Your task to perform on an android device: turn off javascript in the chrome app Image 0: 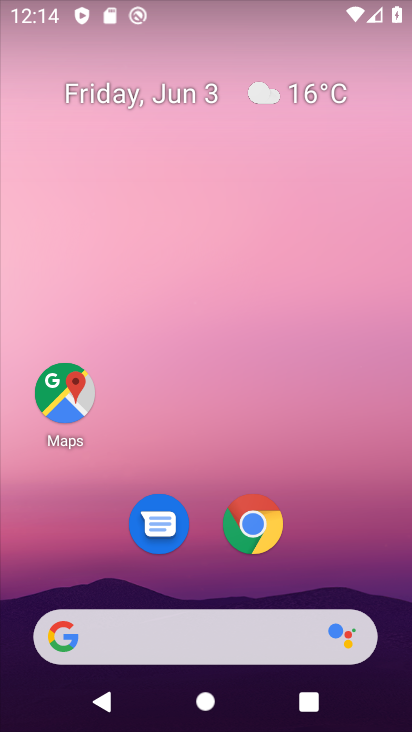
Step 0: click (265, 515)
Your task to perform on an android device: turn off javascript in the chrome app Image 1: 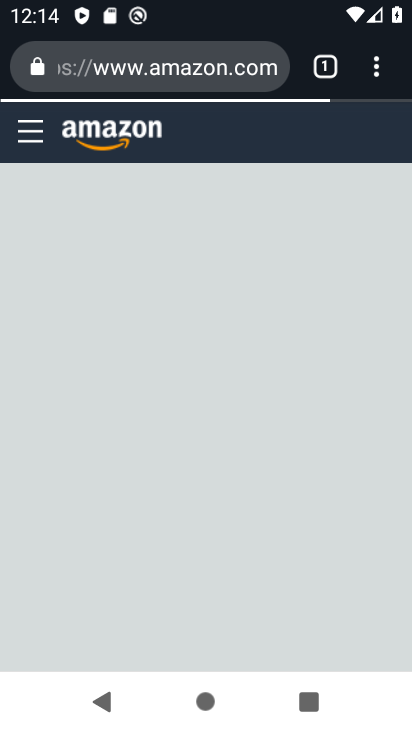
Step 1: click (380, 71)
Your task to perform on an android device: turn off javascript in the chrome app Image 2: 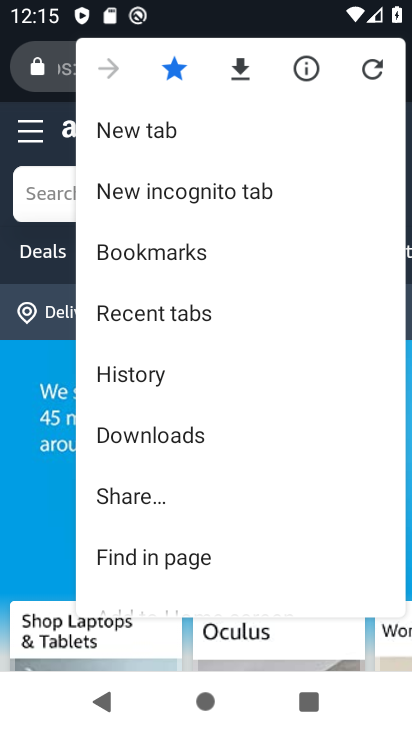
Step 2: drag from (215, 481) to (197, 191)
Your task to perform on an android device: turn off javascript in the chrome app Image 3: 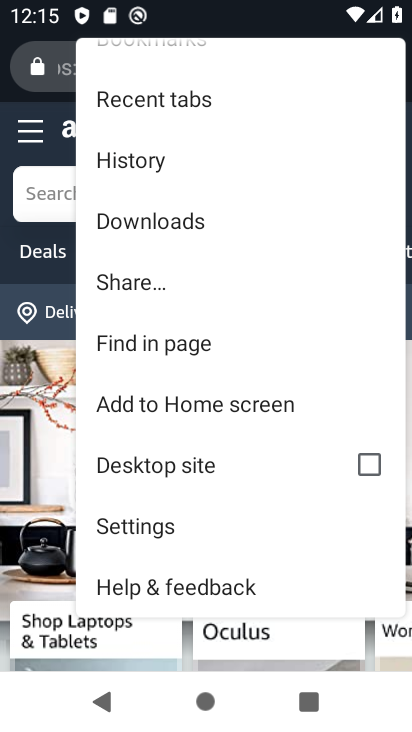
Step 3: click (172, 520)
Your task to perform on an android device: turn off javascript in the chrome app Image 4: 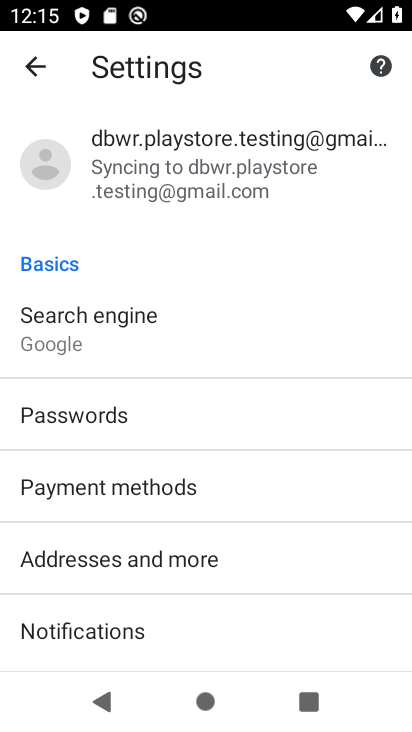
Step 4: drag from (287, 607) to (247, 191)
Your task to perform on an android device: turn off javascript in the chrome app Image 5: 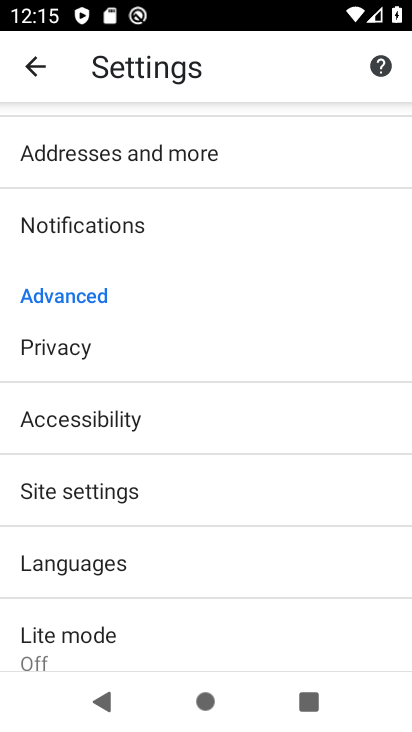
Step 5: click (176, 479)
Your task to perform on an android device: turn off javascript in the chrome app Image 6: 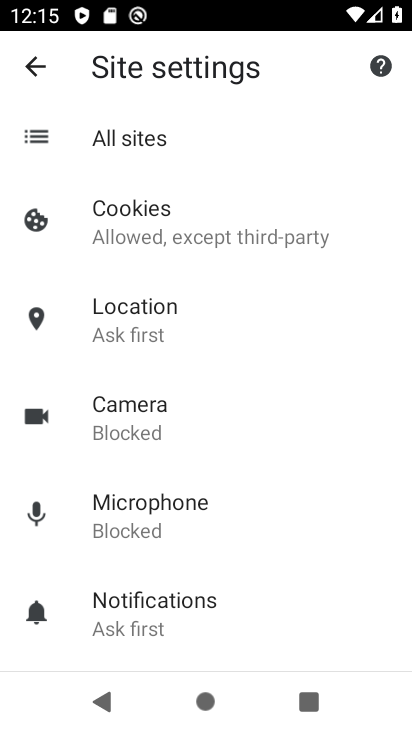
Step 6: drag from (211, 570) to (234, 255)
Your task to perform on an android device: turn off javascript in the chrome app Image 7: 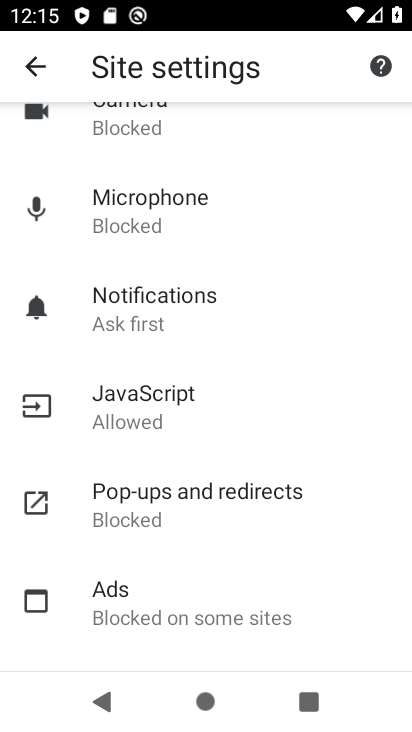
Step 7: click (208, 404)
Your task to perform on an android device: turn off javascript in the chrome app Image 8: 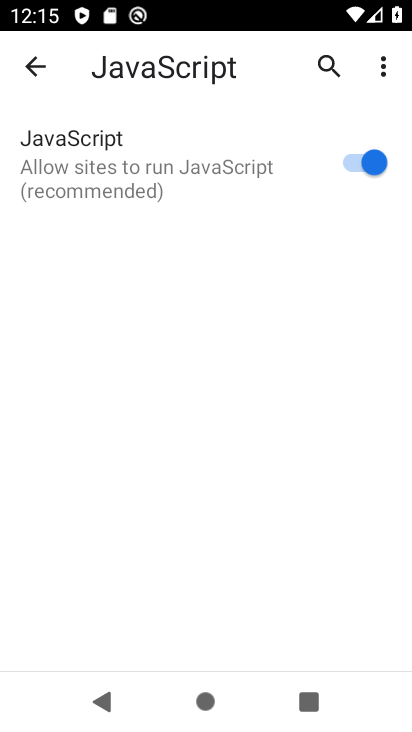
Step 8: click (360, 159)
Your task to perform on an android device: turn off javascript in the chrome app Image 9: 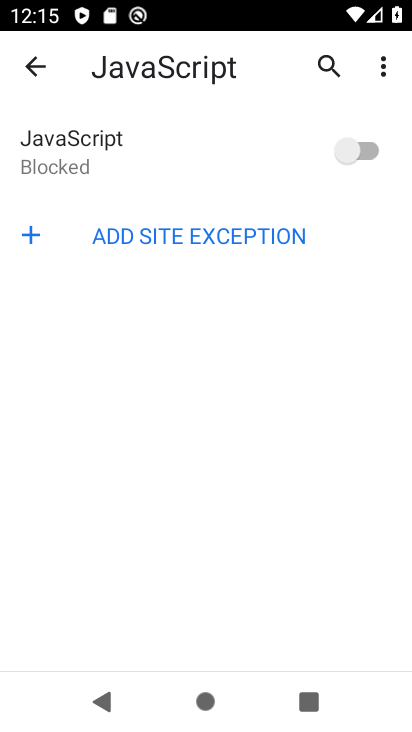
Step 9: task complete